Your task to perform on an android device: Clear the cart on ebay.com. Image 0: 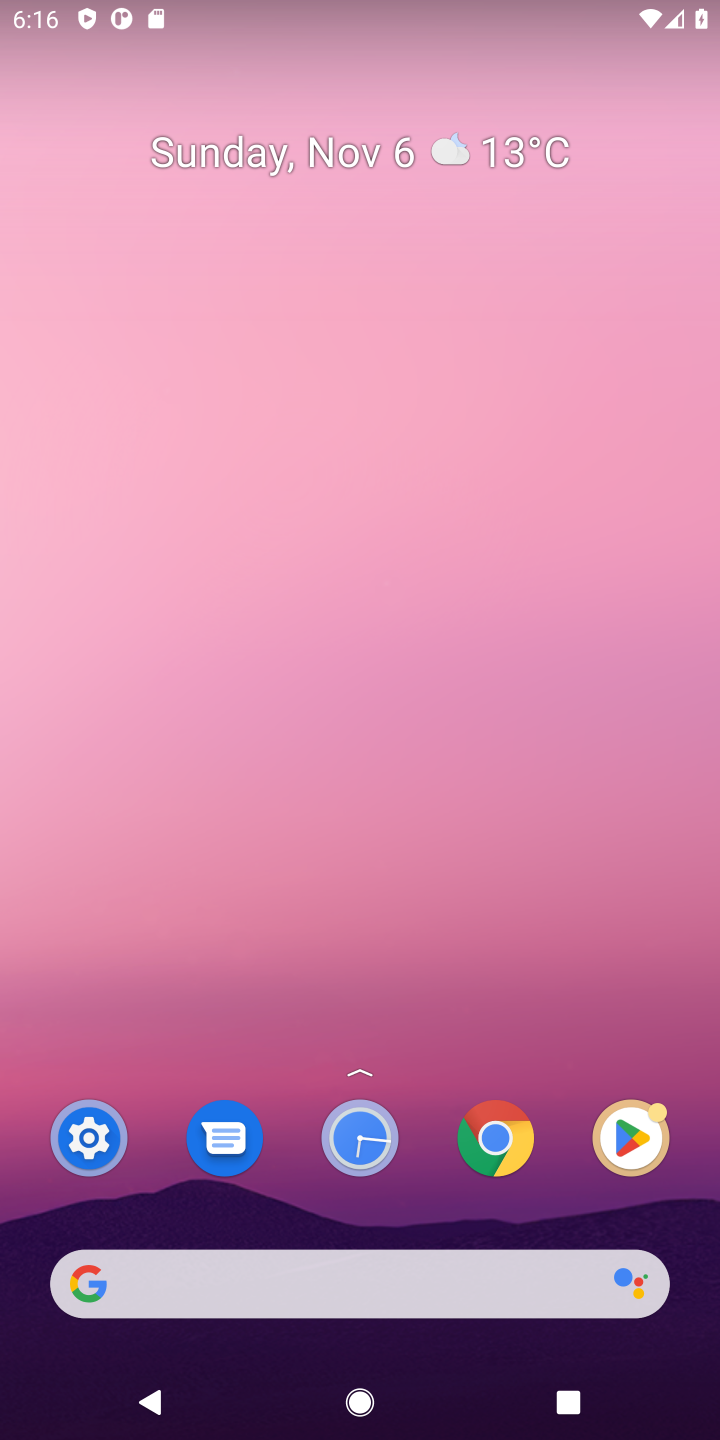
Step 0: drag from (281, 1324) to (286, 231)
Your task to perform on an android device: Clear the cart on ebay.com. Image 1: 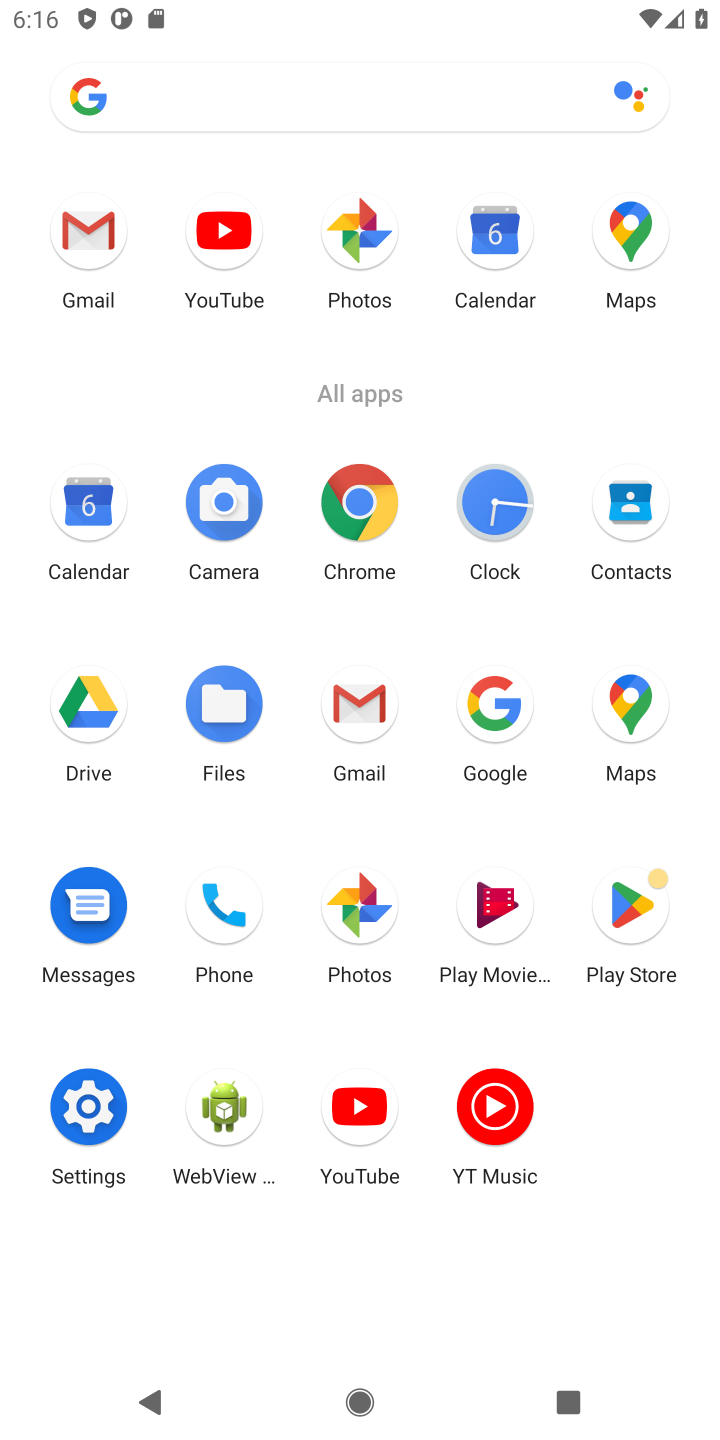
Step 1: click (487, 713)
Your task to perform on an android device: Clear the cart on ebay.com. Image 2: 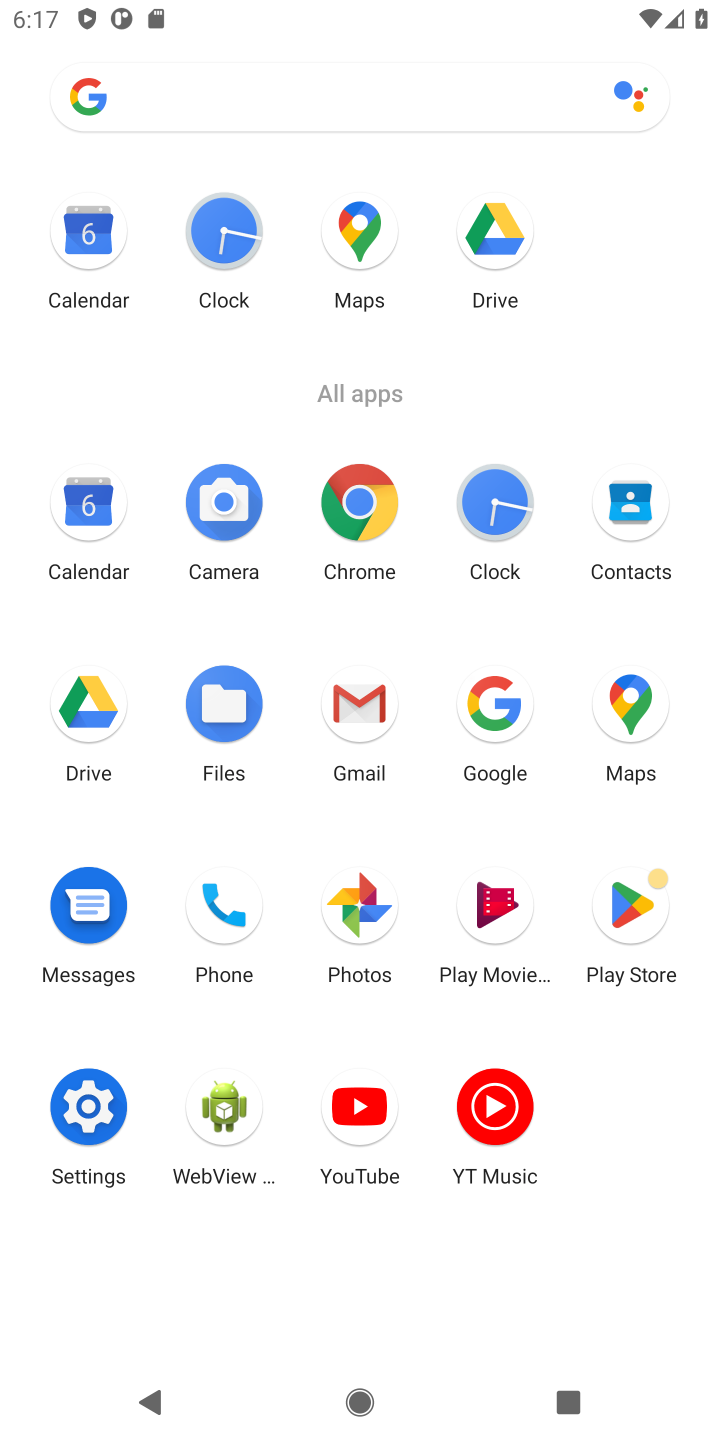
Step 2: click (492, 688)
Your task to perform on an android device: Clear the cart on ebay.com. Image 3: 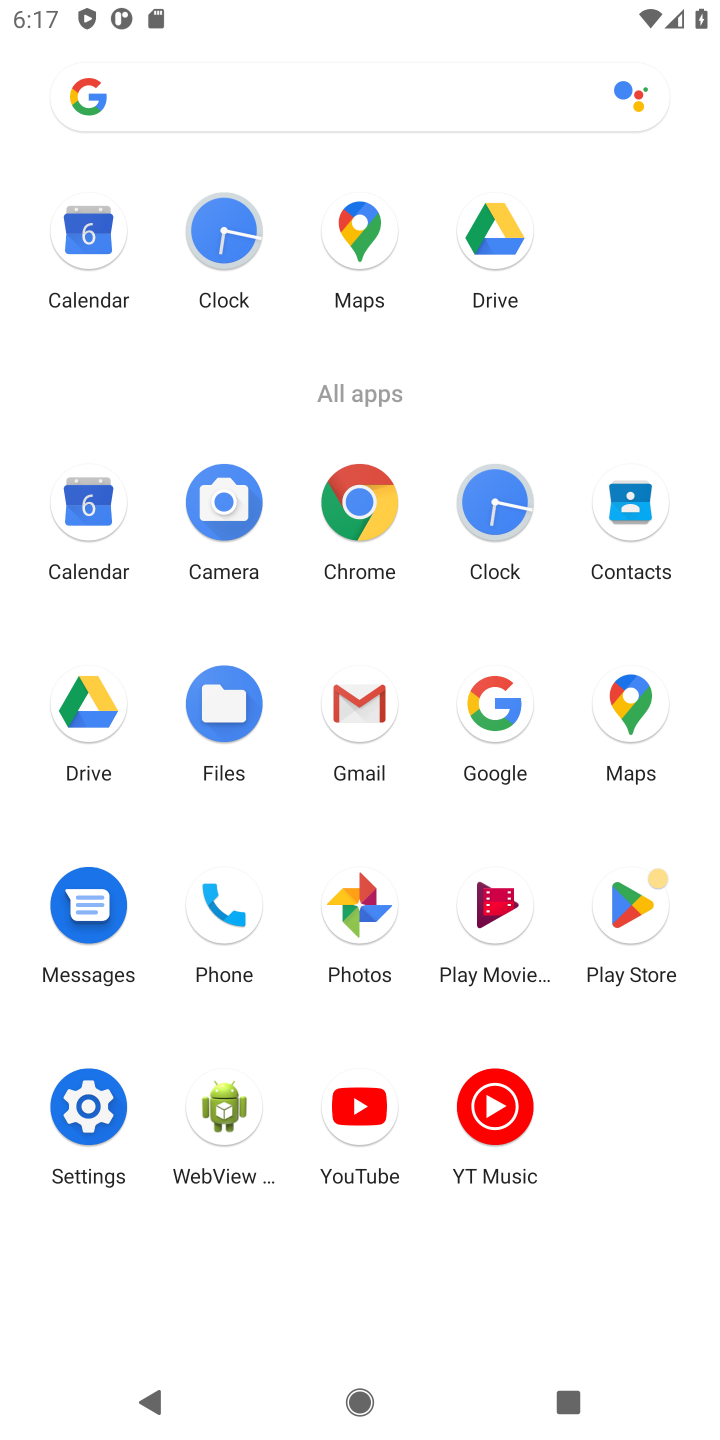
Step 3: click (492, 688)
Your task to perform on an android device: Clear the cart on ebay.com. Image 4: 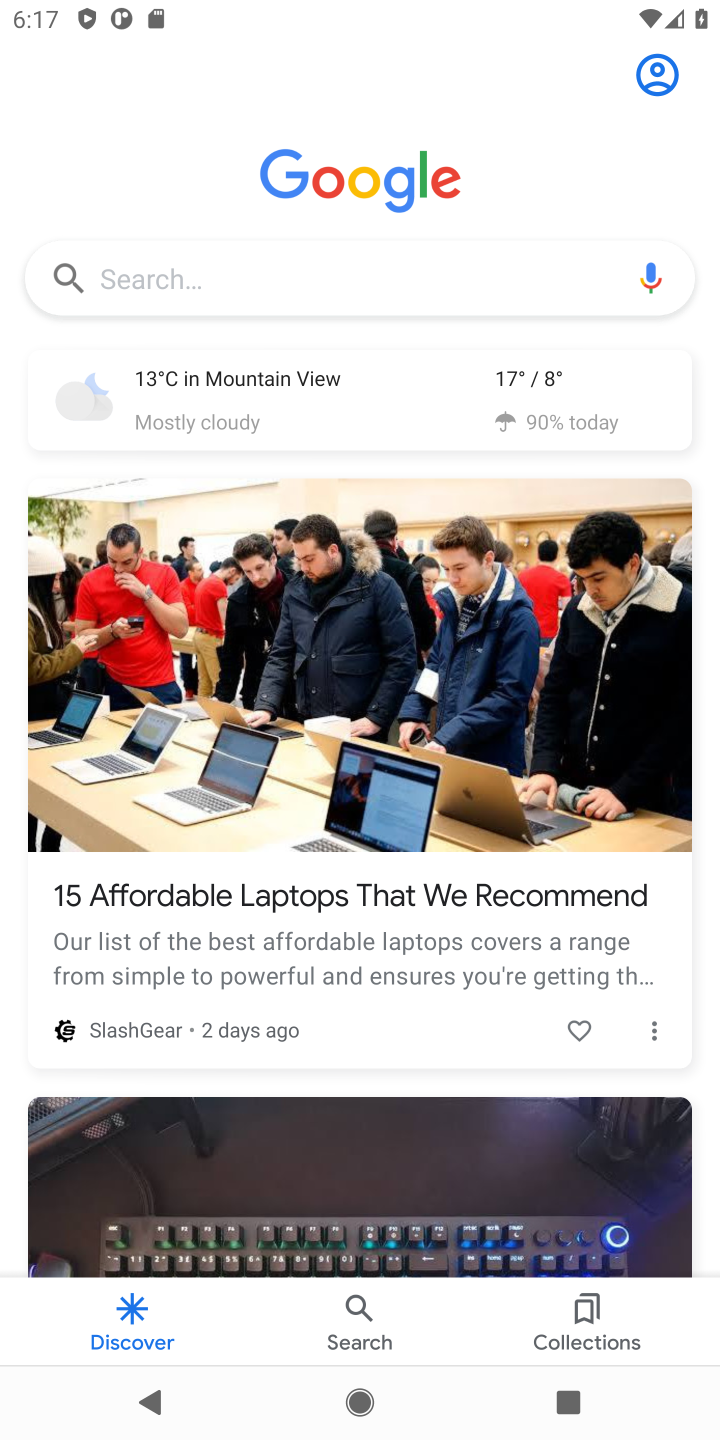
Step 4: click (363, 260)
Your task to perform on an android device: Clear the cart on ebay.com. Image 5: 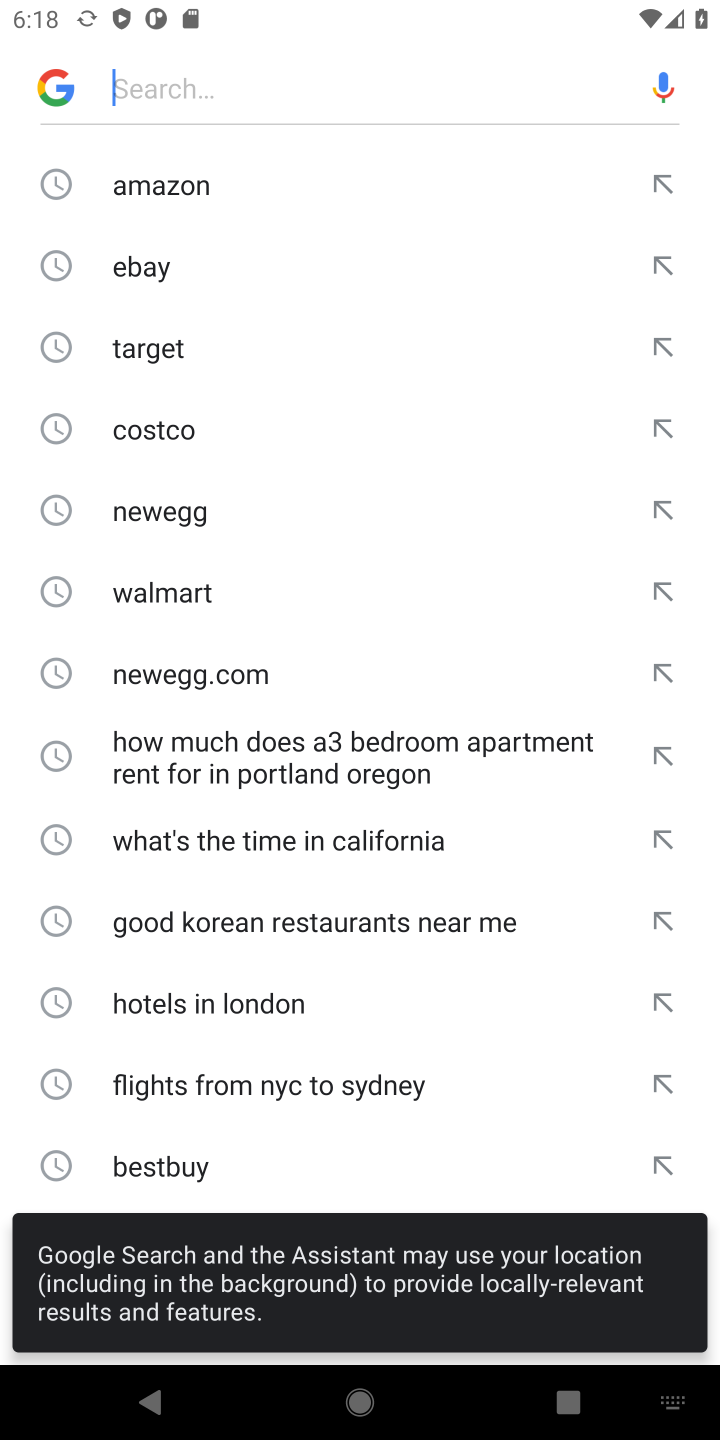
Step 5: type "ebay.com. "
Your task to perform on an android device: Clear the cart on ebay.com. Image 6: 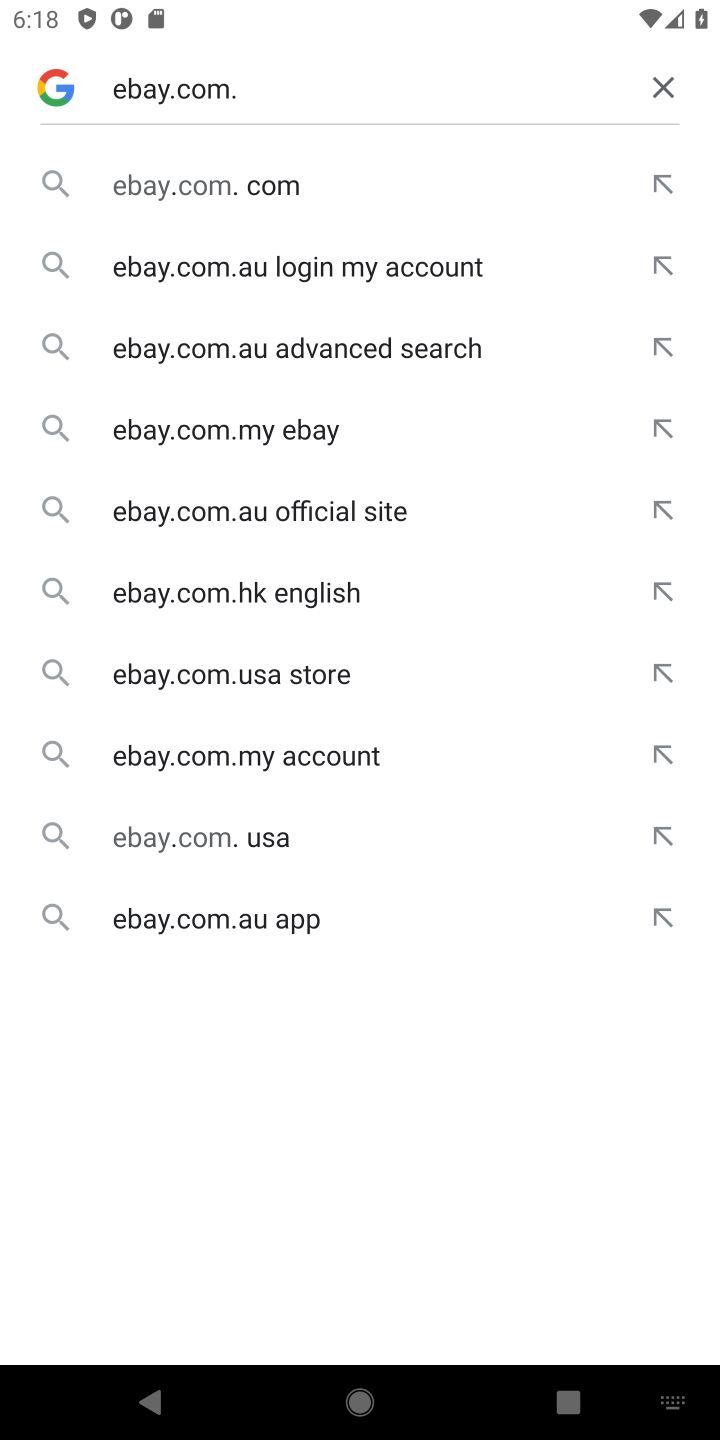
Step 6: click (199, 184)
Your task to perform on an android device: Clear the cart on ebay.com. Image 7: 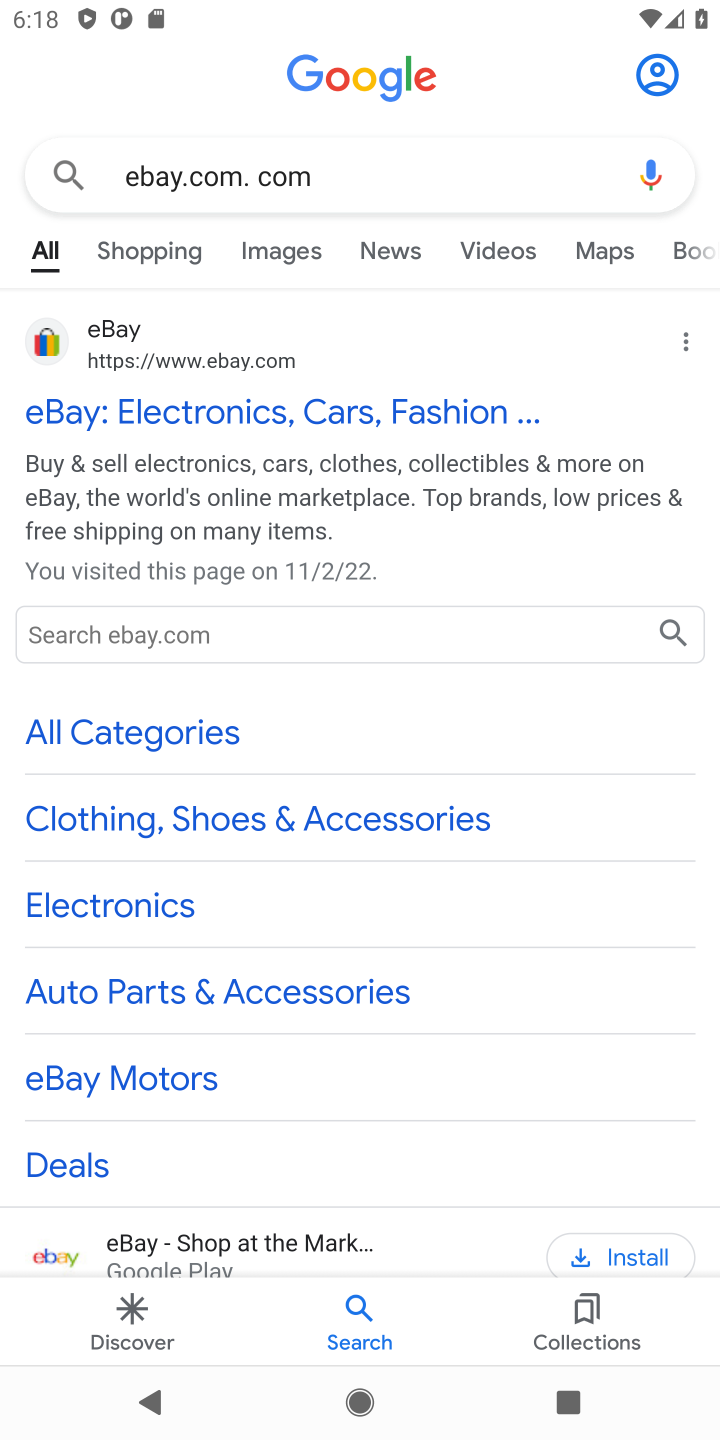
Step 7: click (46, 344)
Your task to perform on an android device: Clear the cart on ebay.com. Image 8: 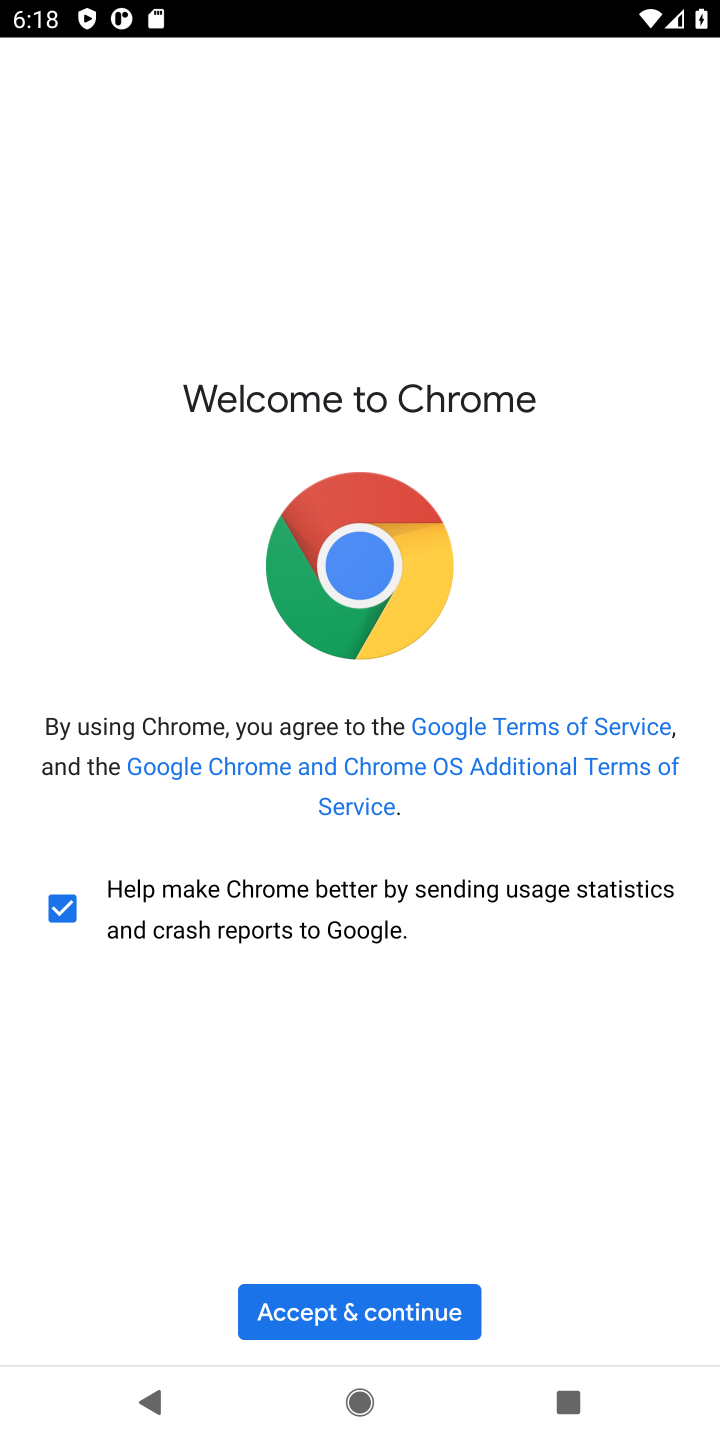
Step 8: click (309, 1302)
Your task to perform on an android device: Clear the cart on ebay.com. Image 9: 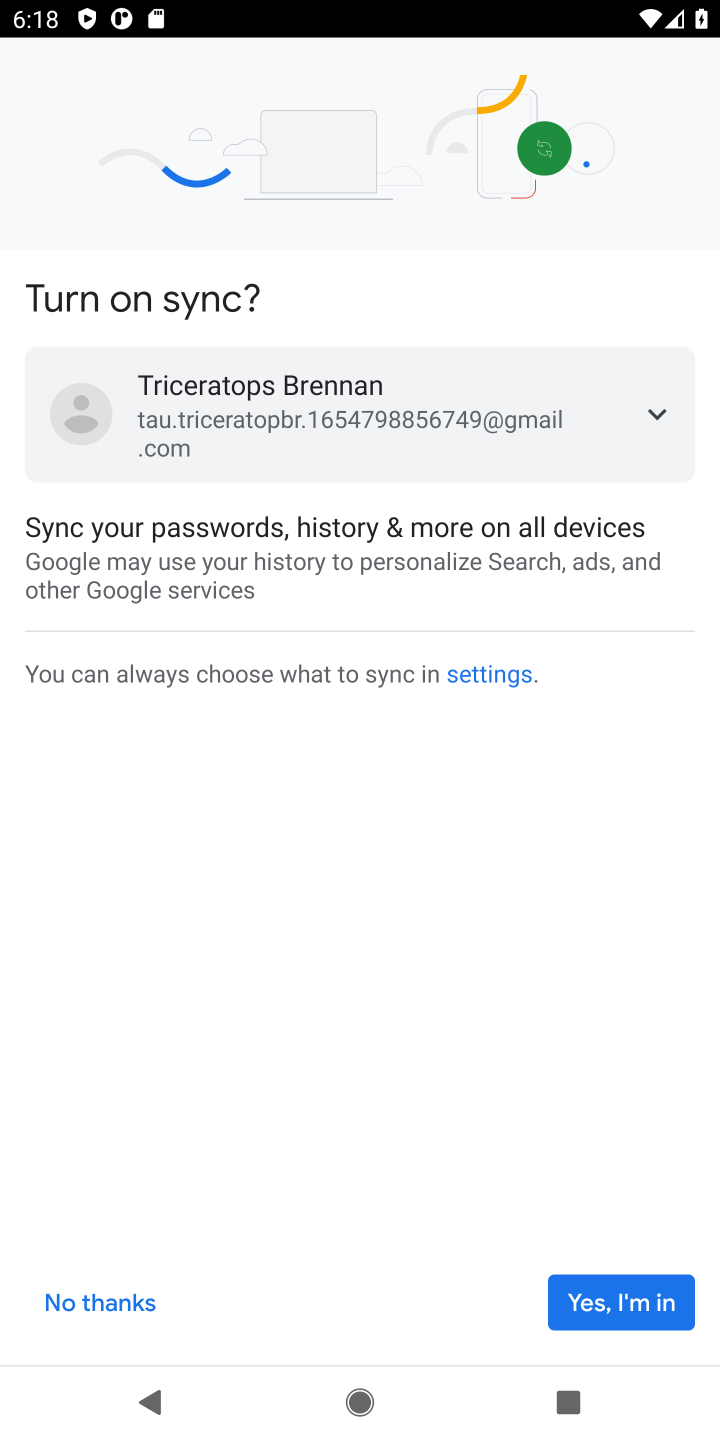
Step 9: click (561, 1321)
Your task to perform on an android device: Clear the cart on ebay.com. Image 10: 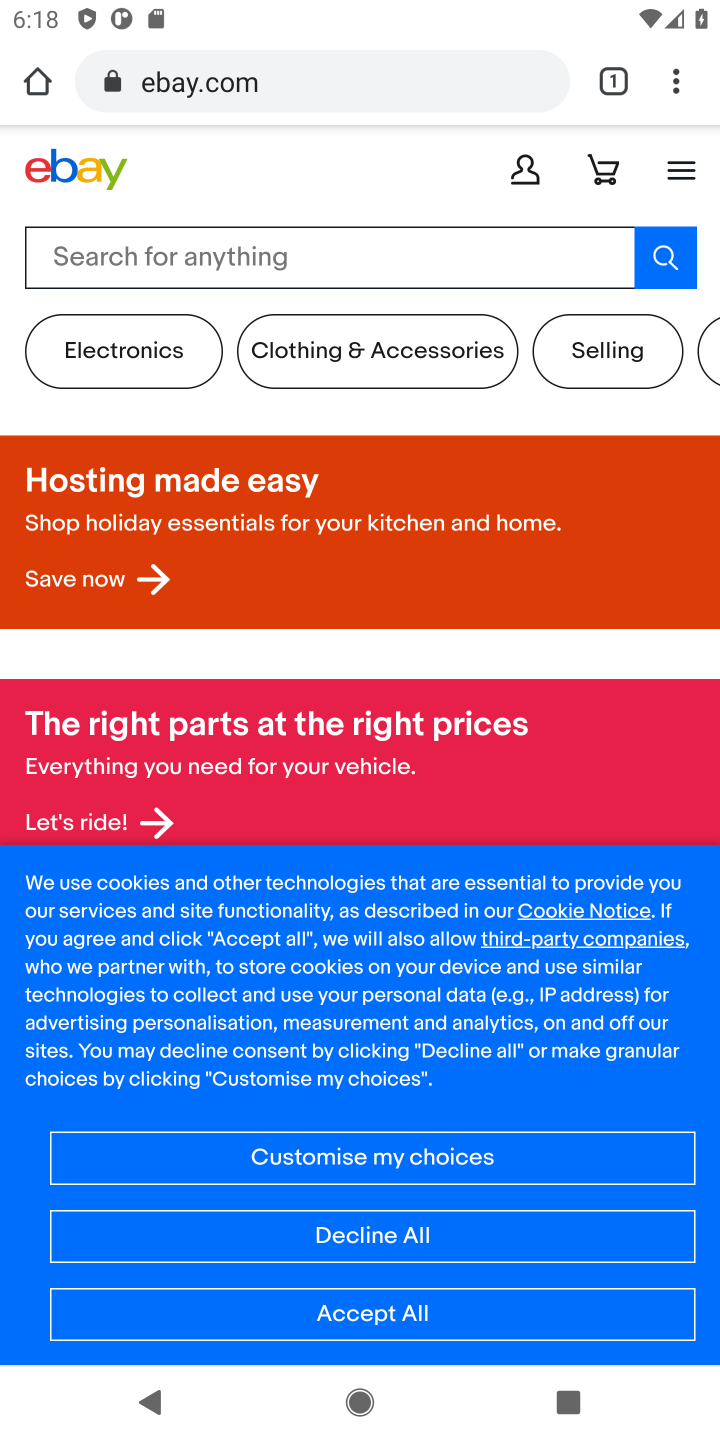
Step 10: click (597, 166)
Your task to perform on an android device: Clear the cart on ebay.com. Image 11: 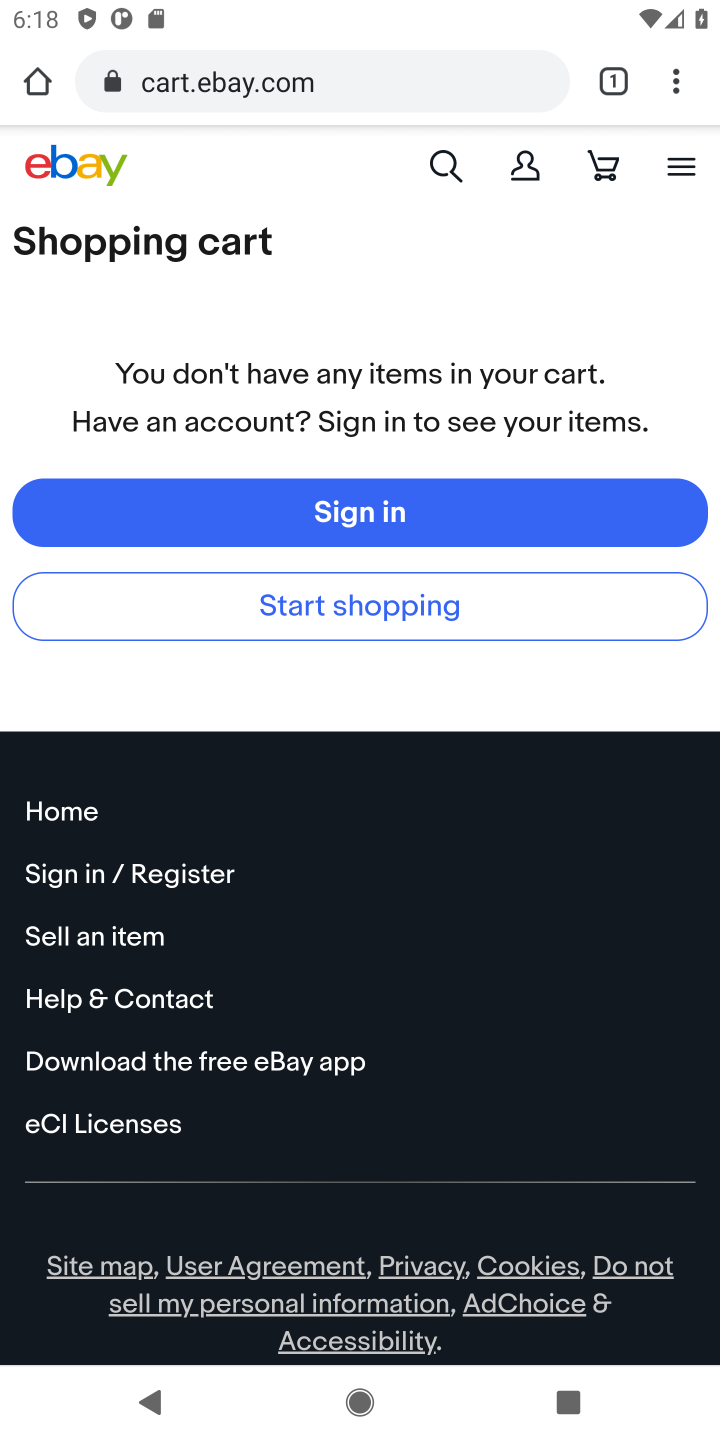
Step 11: task complete